Your task to perform on an android device: Go to privacy settings Image 0: 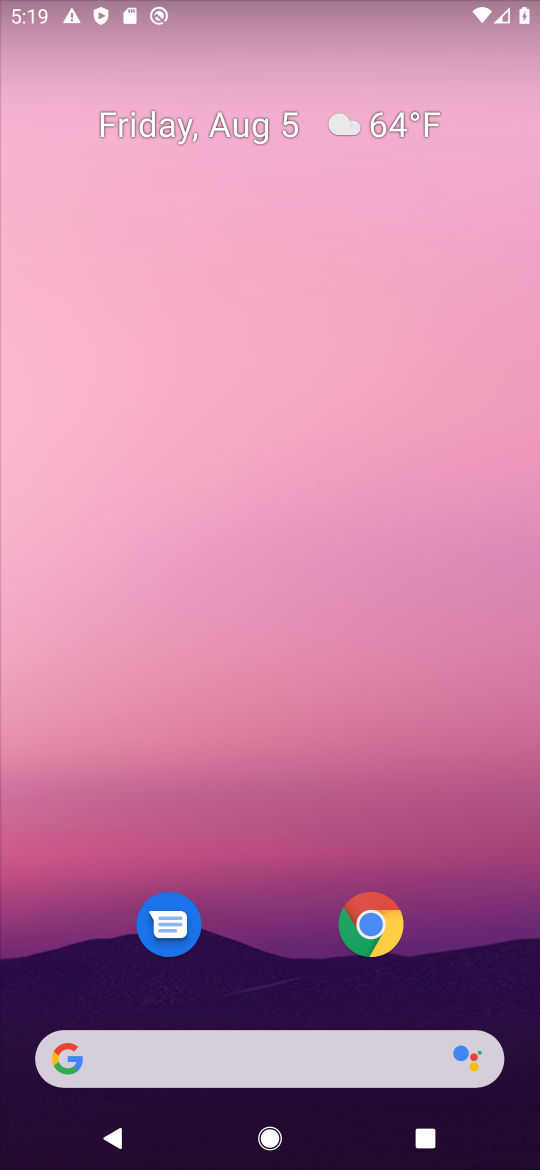
Step 0: drag from (223, 1145) to (281, 98)
Your task to perform on an android device: Go to privacy settings Image 1: 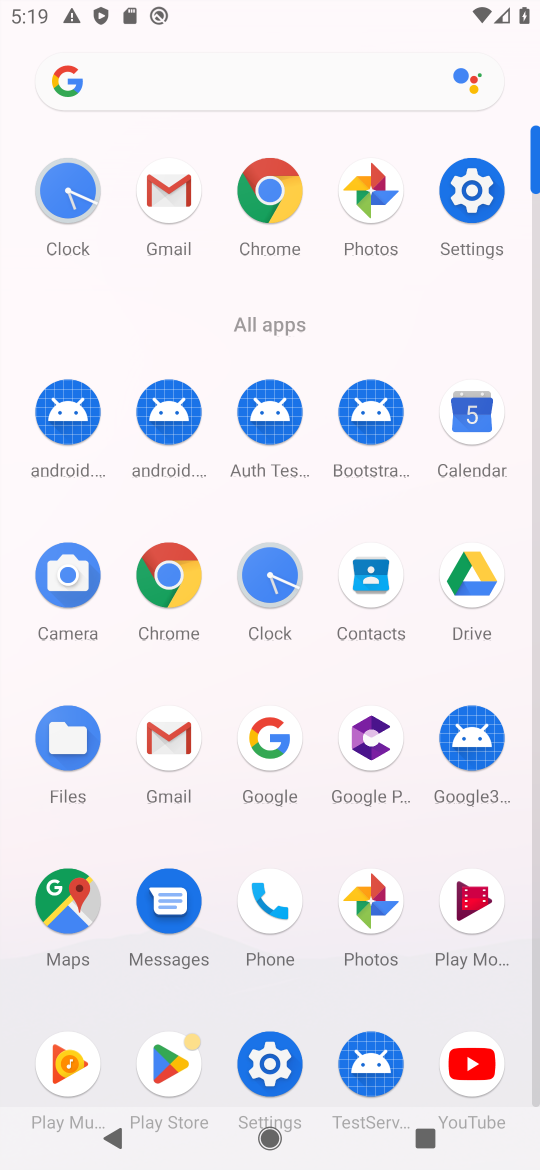
Step 1: click (480, 198)
Your task to perform on an android device: Go to privacy settings Image 2: 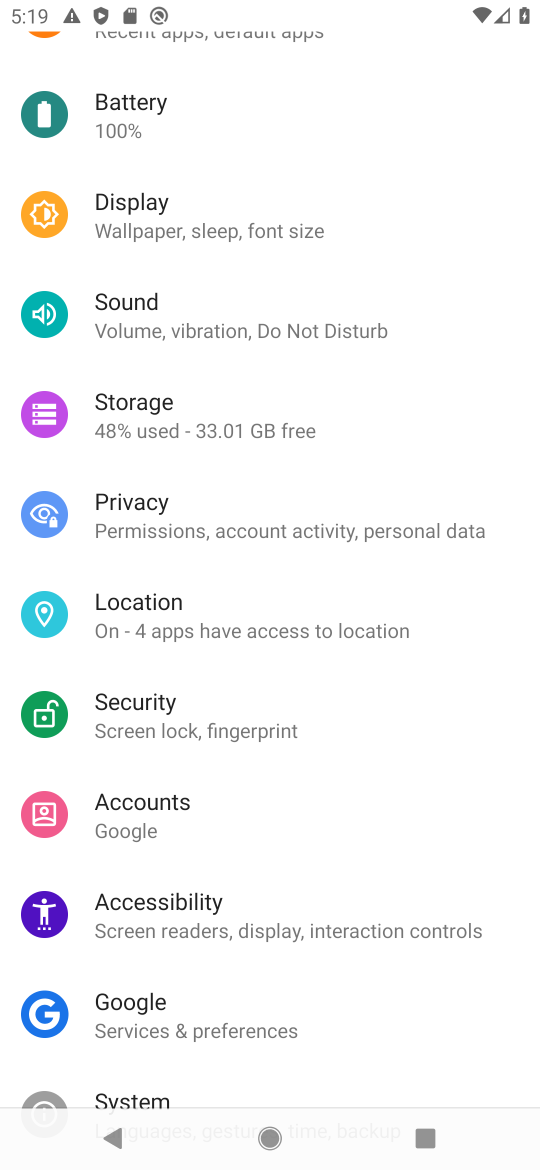
Step 2: click (296, 533)
Your task to perform on an android device: Go to privacy settings Image 3: 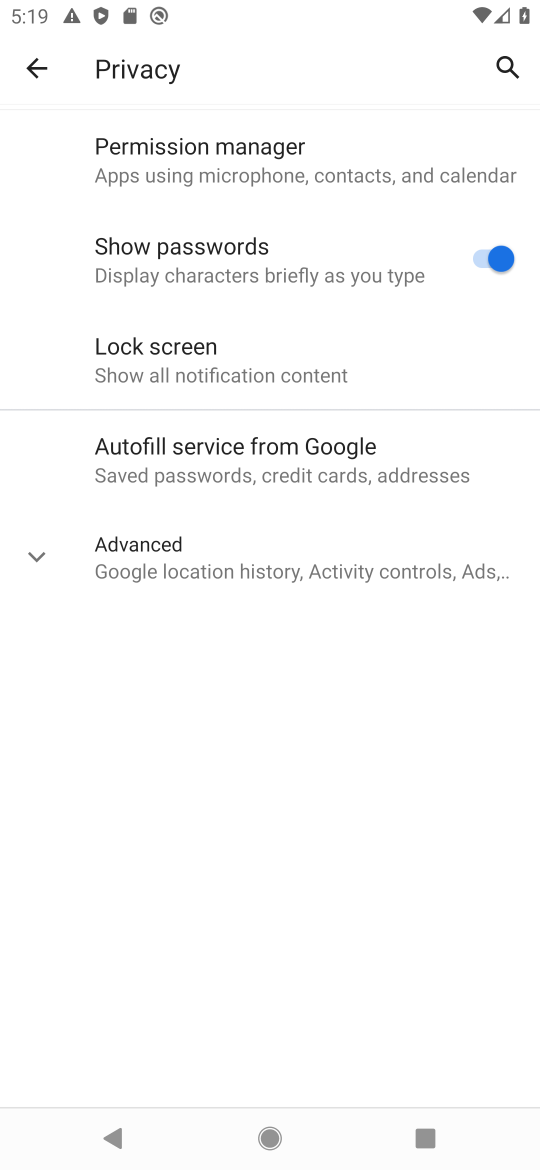
Step 3: task complete